Your task to perform on an android device: Go to CNN.com Image 0: 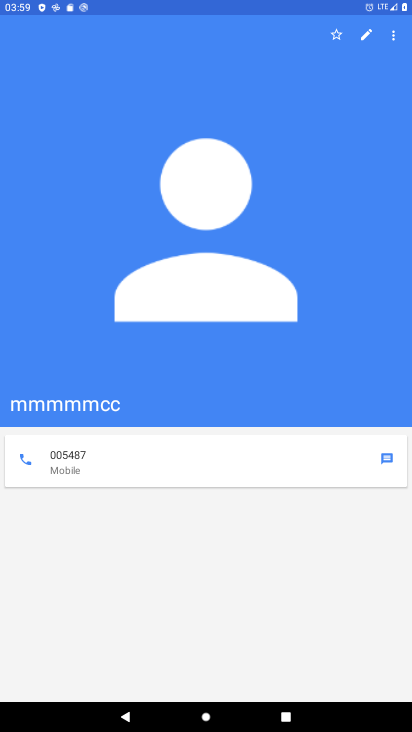
Step 0: task complete